Your task to perform on an android device: Play the last video I watched on Youtube Image 0: 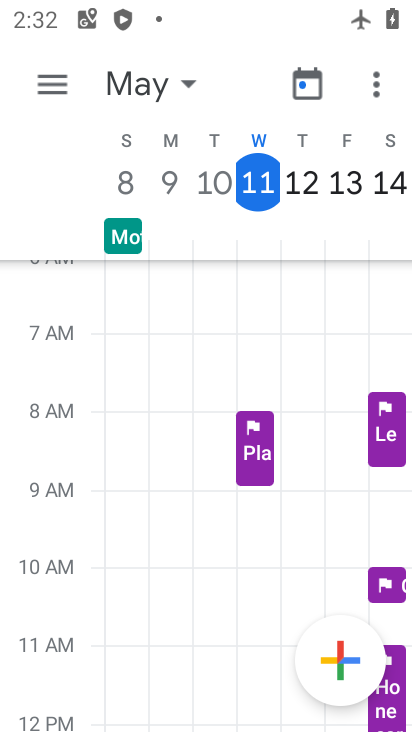
Step 0: press home button
Your task to perform on an android device: Play the last video I watched on Youtube Image 1: 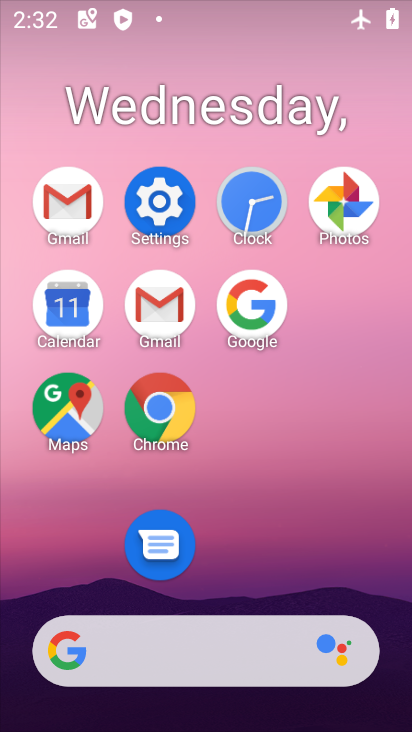
Step 1: drag from (262, 559) to (295, 219)
Your task to perform on an android device: Play the last video I watched on Youtube Image 2: 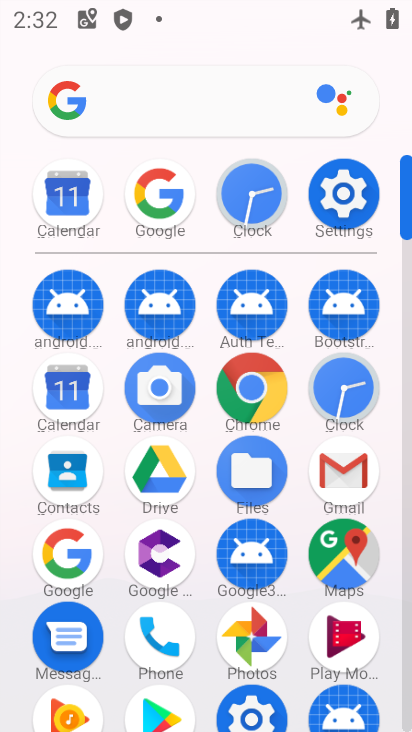
Step 2: drag from (184, 568) to (214, 212)
Your task to perform on an android device: Play the last video I watched on Youtube Image 3: 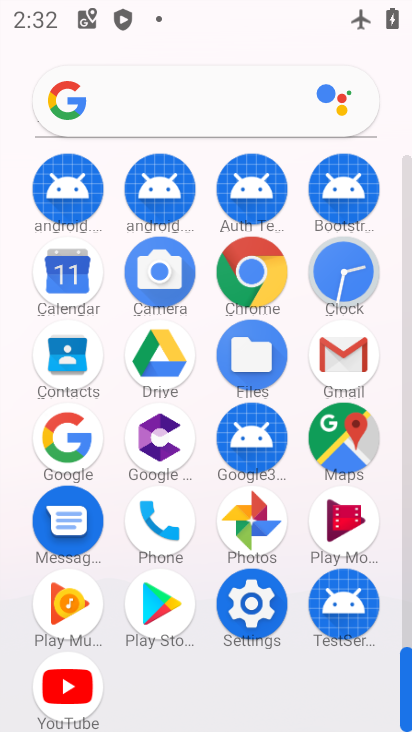
Step 3: click (62, 679)
Your task to perform on an android device: Play the last video I watched on Youtube Image 4: 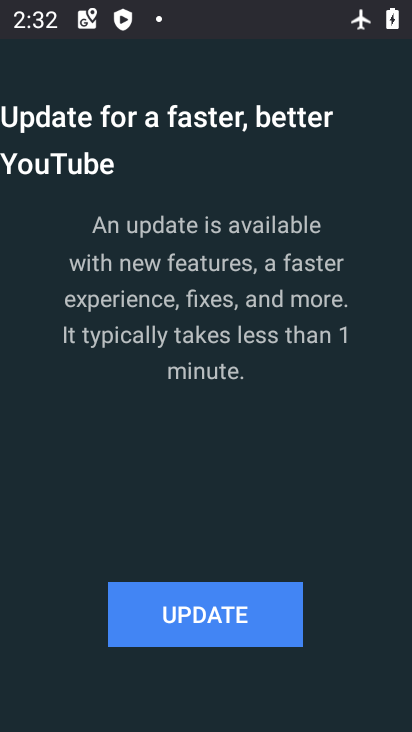
Step 4: click (131, 612)
Your task to perform on an android device: Play the last video I watched on Youtube Image 5: 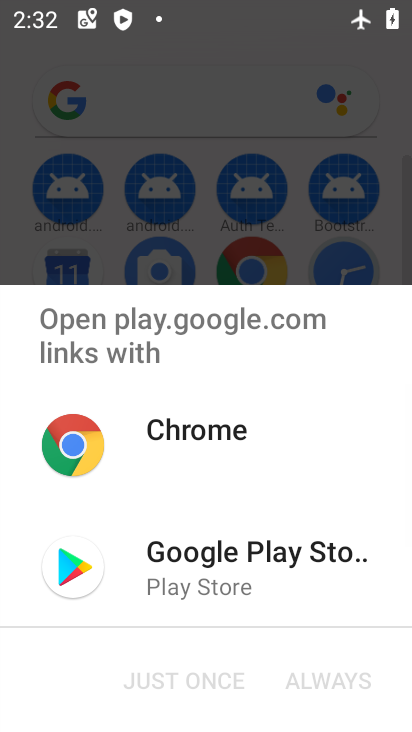
Step 5: click (243, 542)
Your task to perform on an android device: Play the last video I watched on Youtube Image 6: 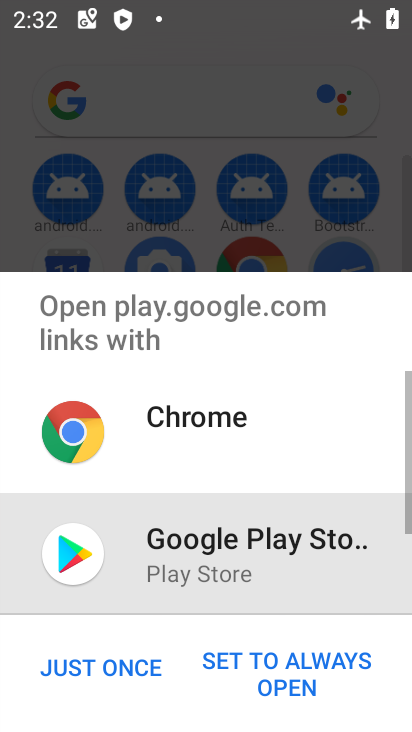
Step 6: click (344, 542)
Your task to perform on an android device: Play the last video I watched on Youtube Image 7: 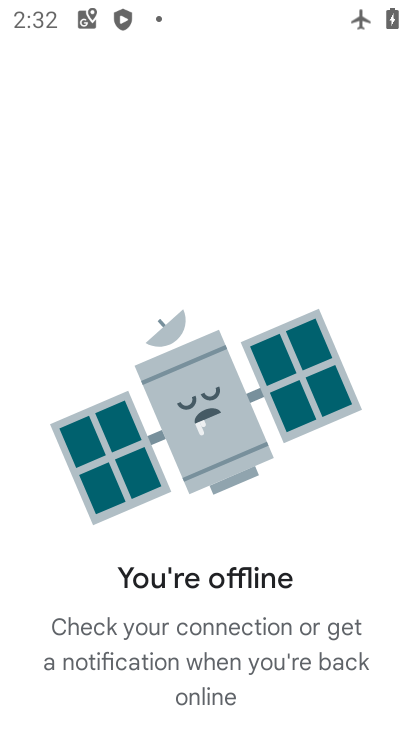
Step 7: task complete